Your task to perform on an android device: check storage Image 0: 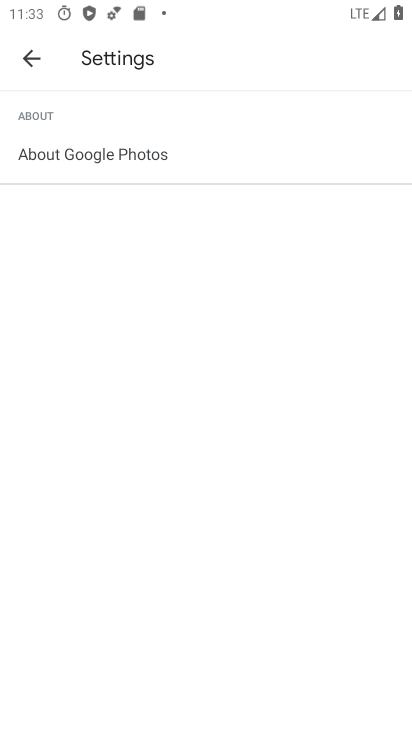
Step 0: press home button
Your task to perform on an android device: check storage Image 1: 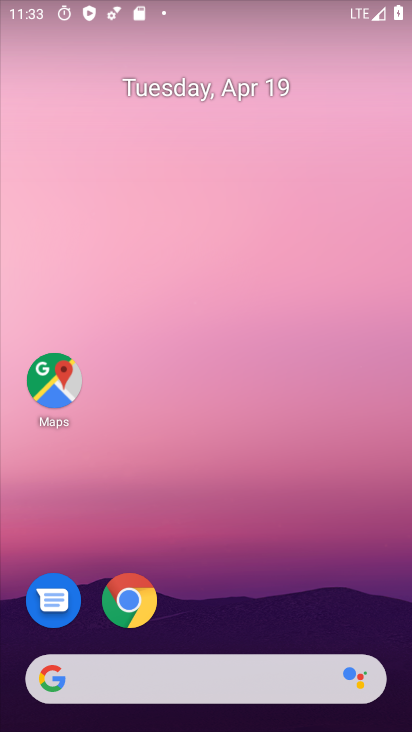
Step 1: drag from (354, 556) to (351, 1)
Your task to perform on an android device: check storage Image 2: 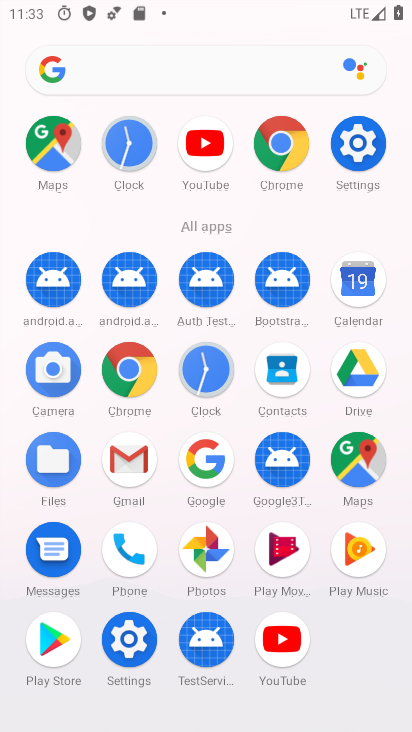
Step 2: click (362, 150)
Your task to perform on an android device: check storage Image 3: 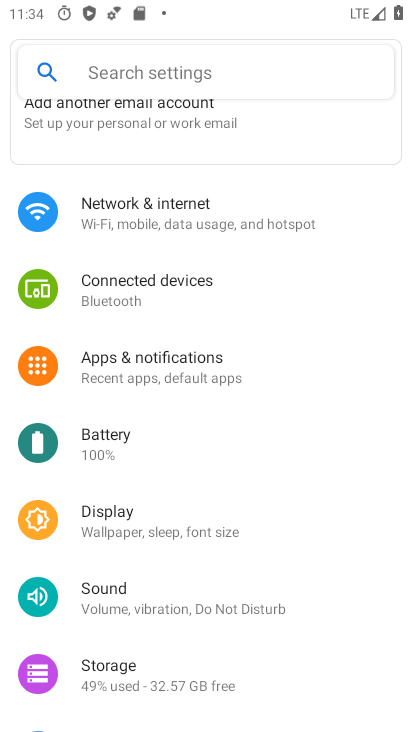
Step 3: click (114, 674)
Your task to perform on an android device: check storage Image 4: 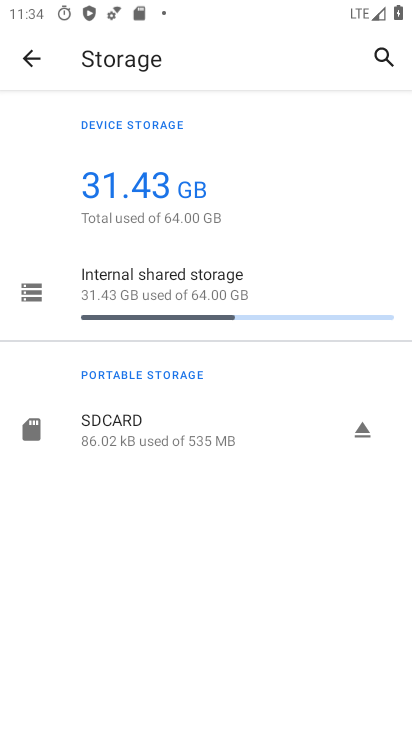
Step 4: click (184, 308)
Your task to perform on an android device: check storage Image 5: 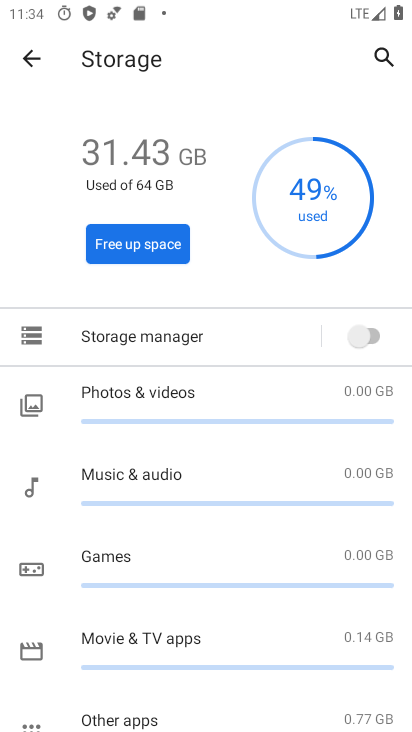
Step 5: task complete